Your task to perform on an android device: toggle wifi Image 0: 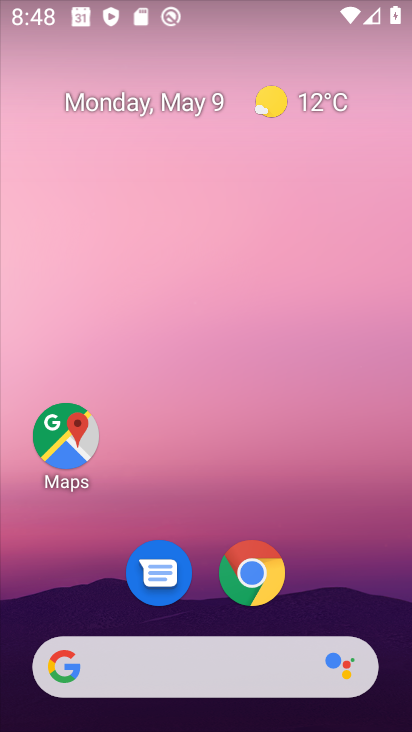
Step 0: drag from (156, 626) to (403, 16)
Your task to perform on an android device: toggle wifi Image 1: 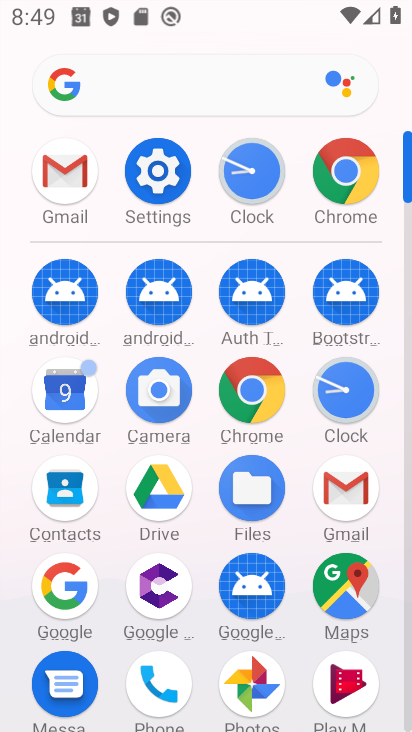
Step 1: click (140, 179)
Your task to perform on an android device: toggle wifi Image 2: 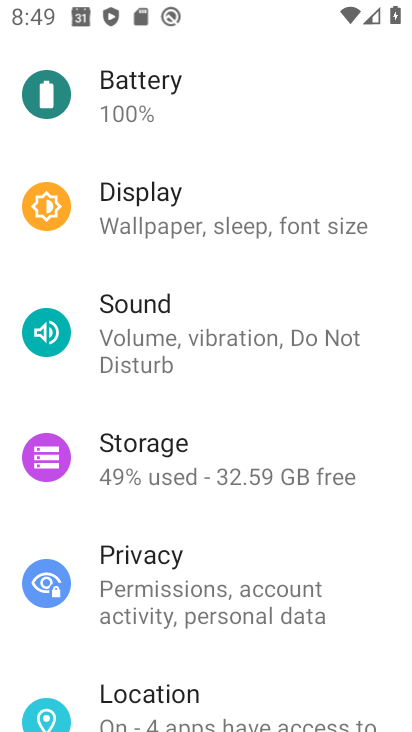
Step 2: drag from (242, 164) to (265, 468)
Your task to perform on an android device: toggle wifi Image 3: 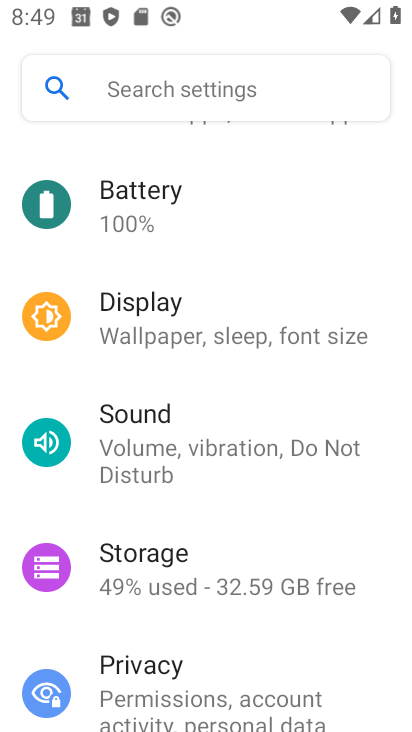
Step 3: drag from (233, 260) to (298, 617)
Your task to perform on an android device: toggle wifi Image 4: 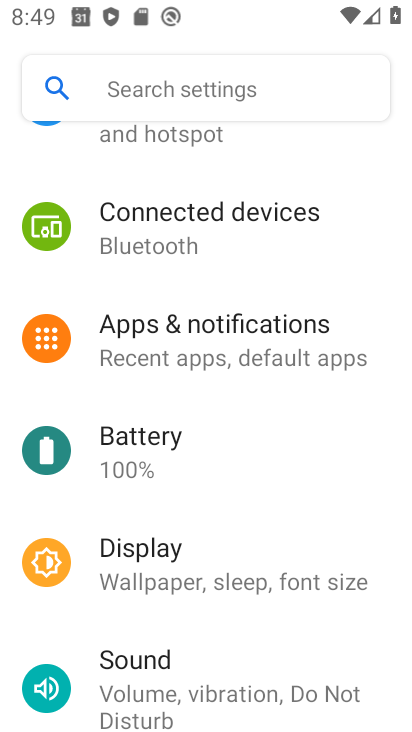
Step 4: drag from (281, 464) to (307, 727)
Your task to perform on an android device: toggle wifi Image 5: 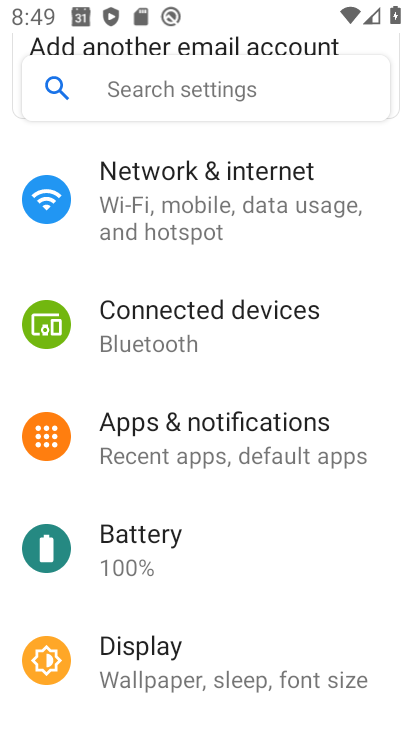
Step 5: drag from (188, 272) to (239, 627)
Your task to perform on an android device: toggle wifi Image 6: 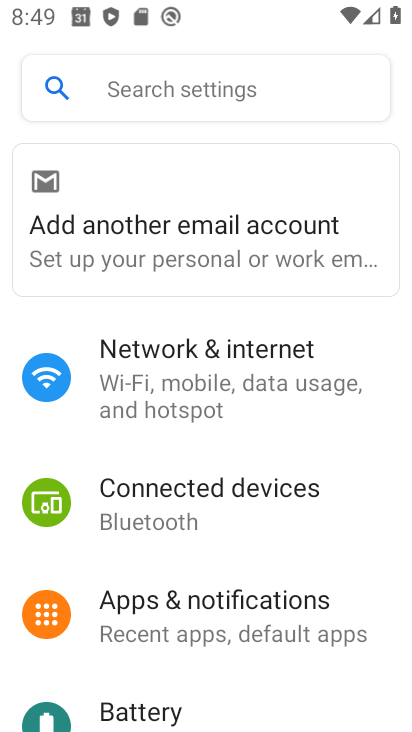
Step 6: click (215, 407)
Your task to perform on an android device: toggle wifi Image 7: 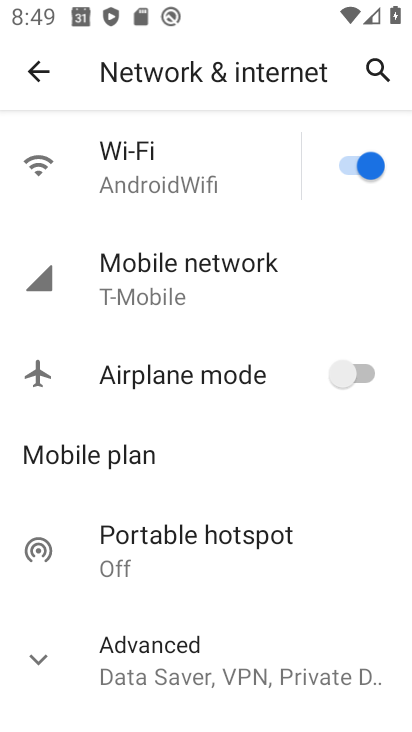
Step 7: click (342, 168)
Your task to perform on an android device: toggle wifi Image 8: 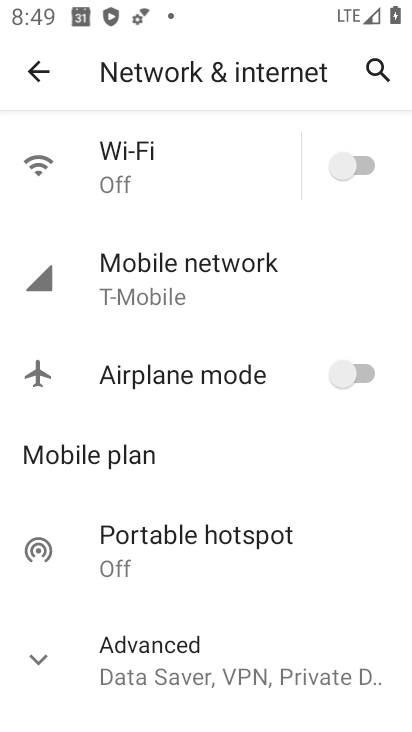
Step 8: task complete